Your task to perform on an android device: Open the phone app and click the voicemail tab. Image 0: 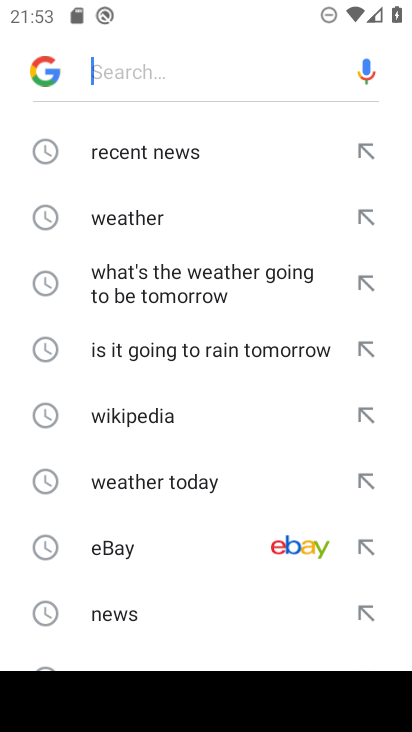
Step 0: press home button
Your task to perform on an android device: Open the phone app and click the voicemail tab. Image 1: 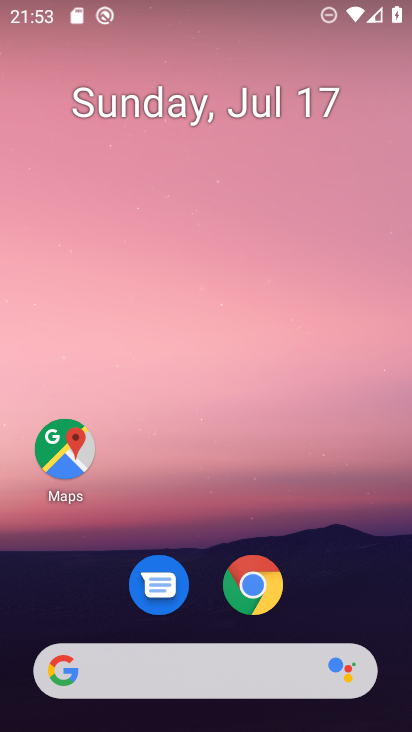
Step 1: drag from (200, 669) to (314, 31)
Your task to perform on an android device: Open the phone app and click the voicemail tab. Image 2: 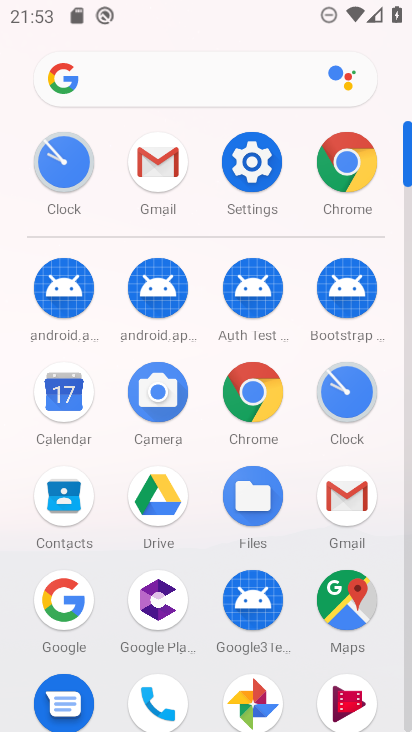
Step 2: click (144, 702)
Your task to perform on an android device: Open the phone app and click the voicemail tab. Image 3: 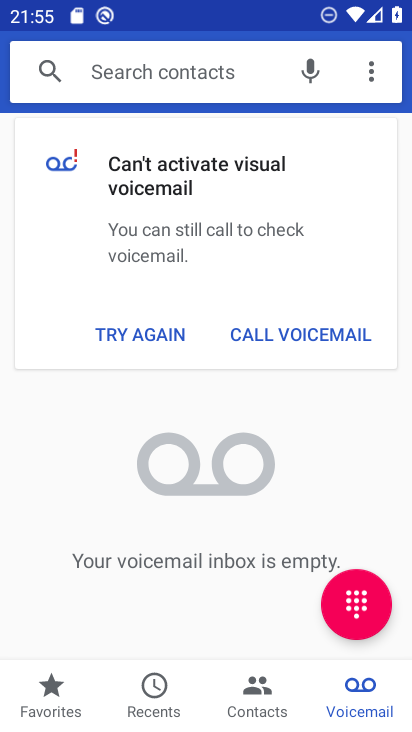
Step 3: task complete